Your task to perform on an android device: create a new album in the google photos Image 0: 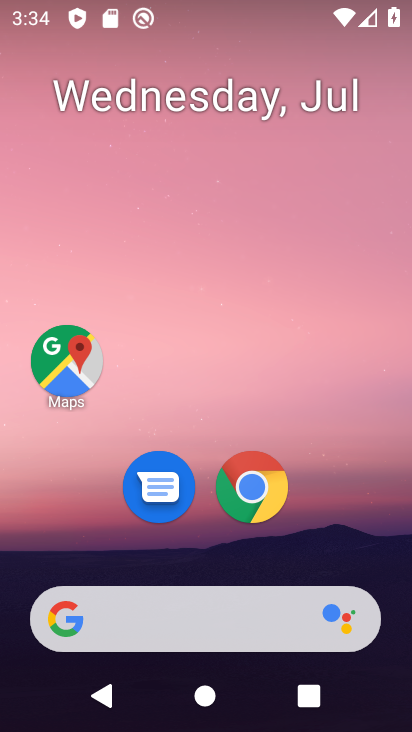
Step 0: drag from (199, 593) to (239, 150)
Your task to perform on an android device: create a new album in the google photos Image 1: 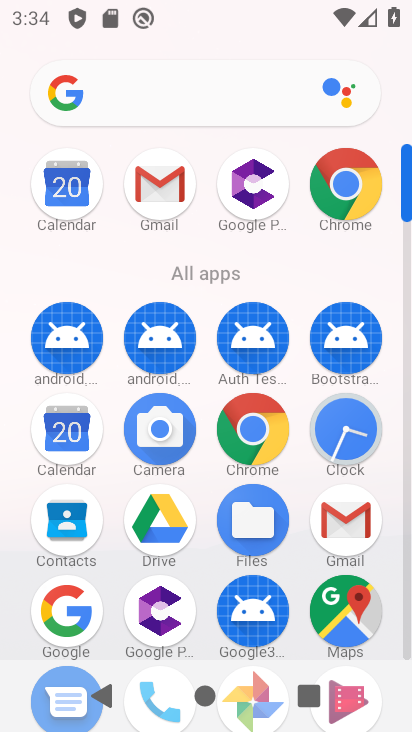
Step 1: drag from (201, 530) to (245, 235)
Your task to perform on an android device: create a new album in the google photos Image 2: 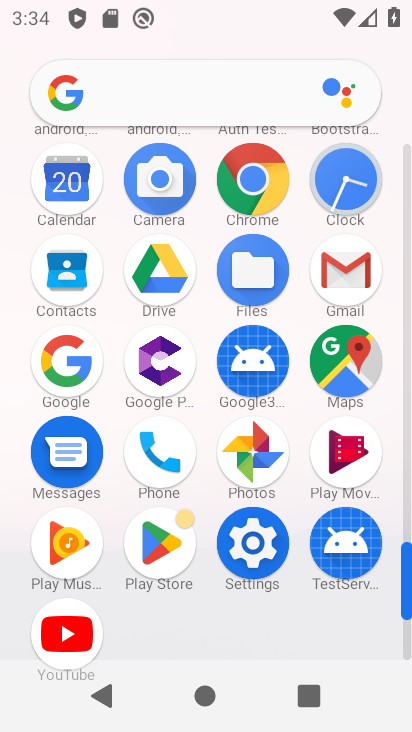
Step 2: click (271, 463)
Your task to perform on an android device: create a new album in the google photos Image 3: 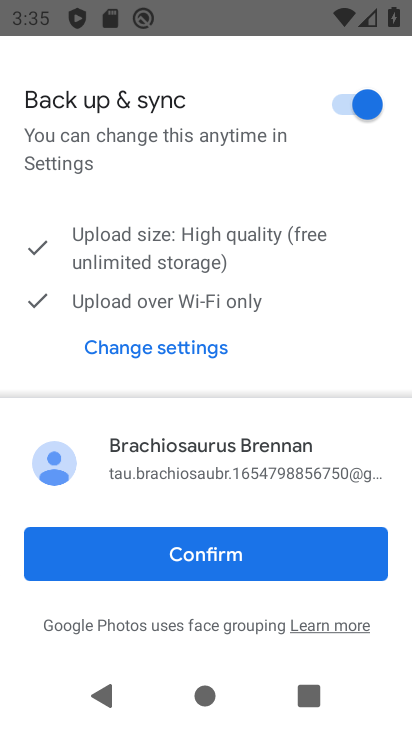
Step 3: click (275, 558)
Your task to perform on an android device: create a new album in the google photos Image 4: 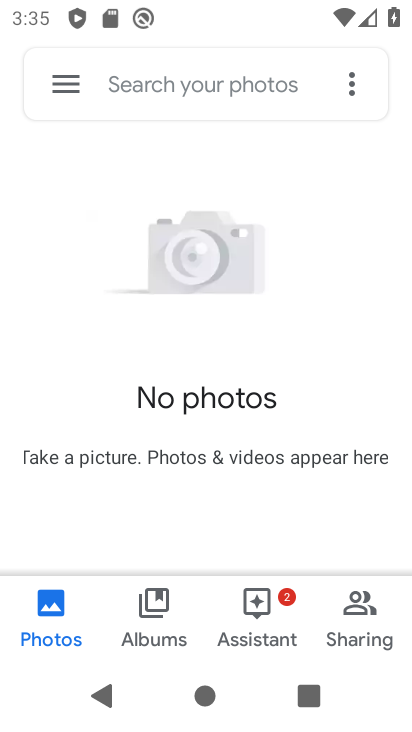
Step 4: click (165, 636)
Your task to perform on an android device: create a new album in the google photos Image 5: 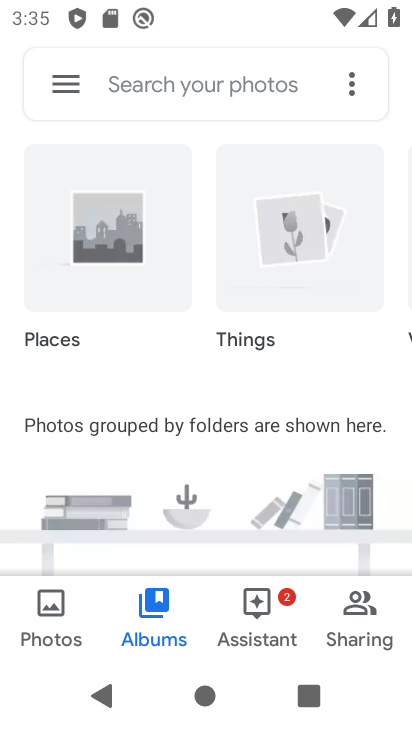
Step 5: task complete